Your task to perform on an android device: turn off picture-in-picture Image 0: 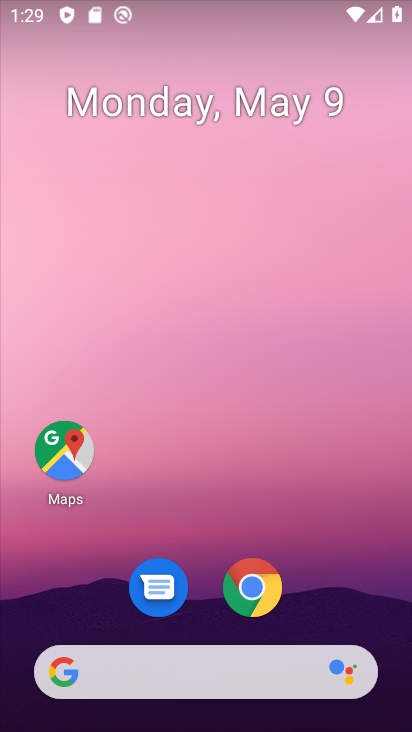
Step 0: drag from (197, 529) to (219, 85)
Your task to perform on an android device: turn off picture-in-picture Image 1: 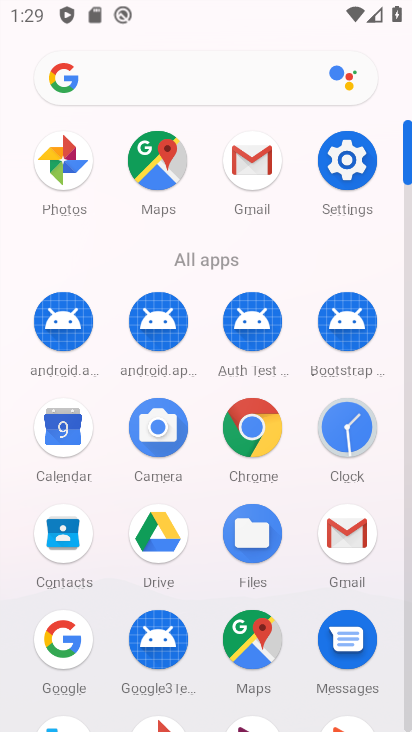
Step 1: click (335, 171)
Your task to perform on an android device: turn off picture-in-picture Image 2: 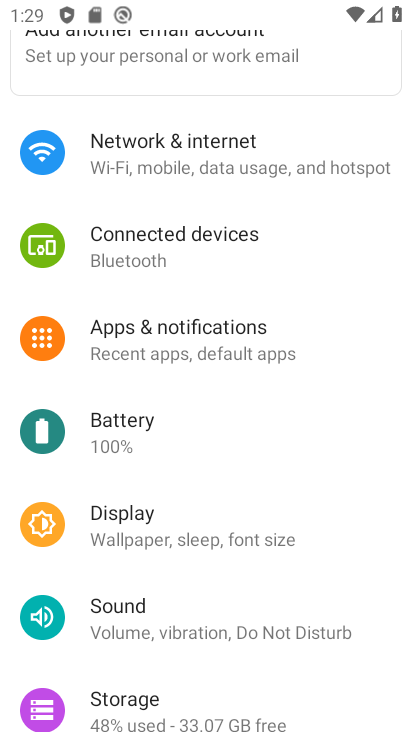
Step 2: drag from (179, 522) to (242, 183)
Your task to perform on an android device: turn off picture-in-picture Image 3: 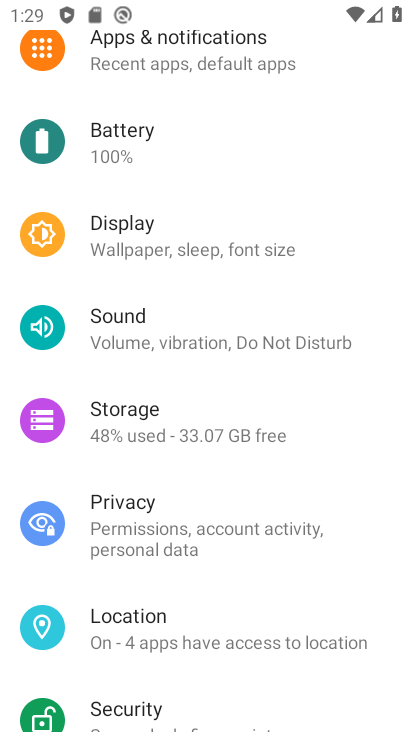
Step 3: drag from (211, 178) to (200, 307)
Your task to perform on an android device: turn off picture-in-picture Image 4: 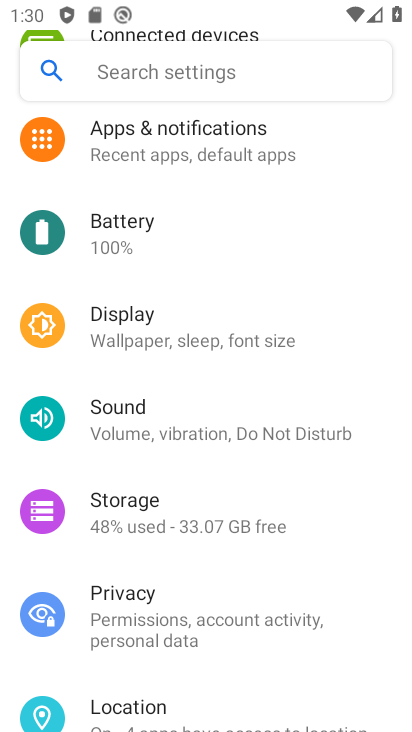
Step 4: click (218, 155)
Your task to perform on an android device: turn off picture-in-picture Image 5: 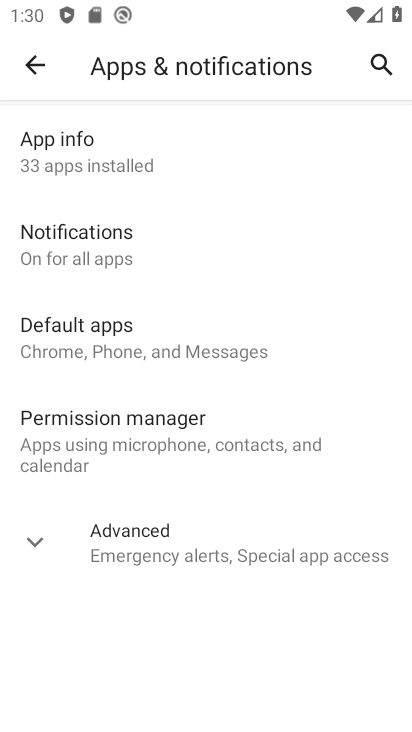
Step 5: click (169, 544)
Your task to perform on an android device: turn off picture-in-picture Image 6: 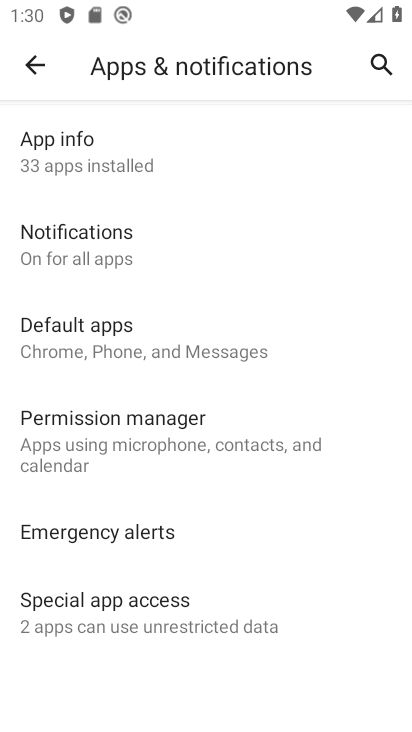
Step 6: click (187, 616)
Your task to perform on an android device: turn off picture-in-picture Image 7: 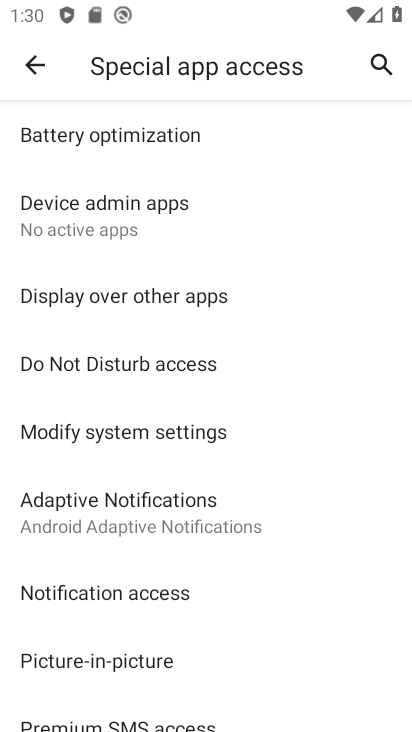
Step 7: click (143, 661)
Your task to perform on an android device: turn off picture-in-picture Image 8: 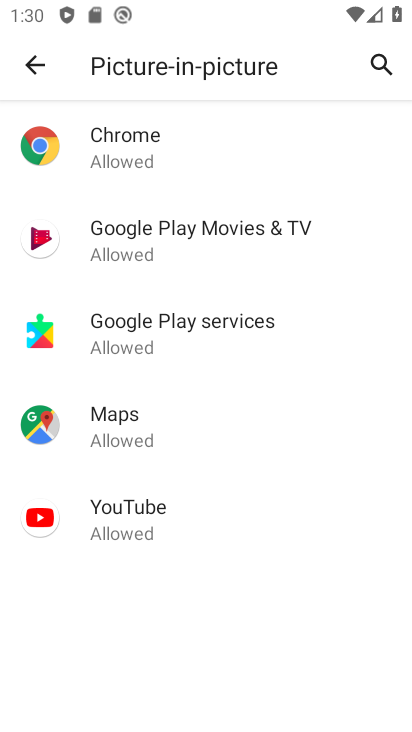
Step 8: click (223, 168)
Your task to perform on an android device: turn off picture-in-picture Image 9: 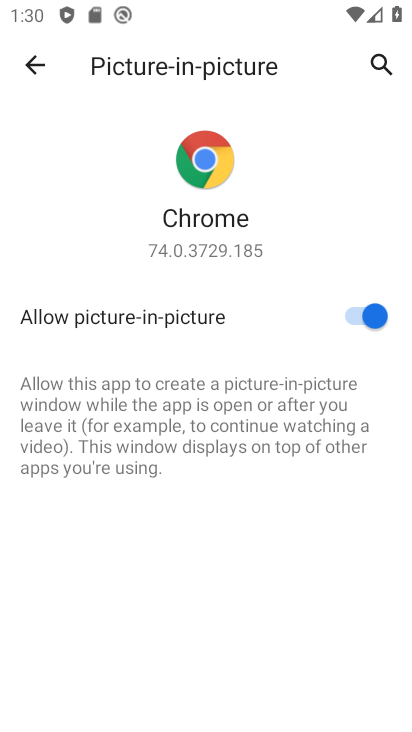
Step 9: click (366, 307)
Your task to perform on an android device: turn off picture-in-picture Image 10: 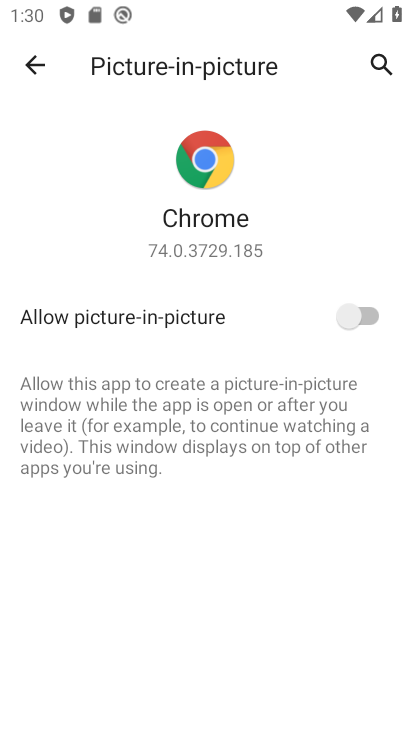
Step 10: task complete